Your task to perform on an android device: Clear all items from cart on costco.com. Add bose soundlink mini to the cart on costco.com, then select checkout. Image 0: 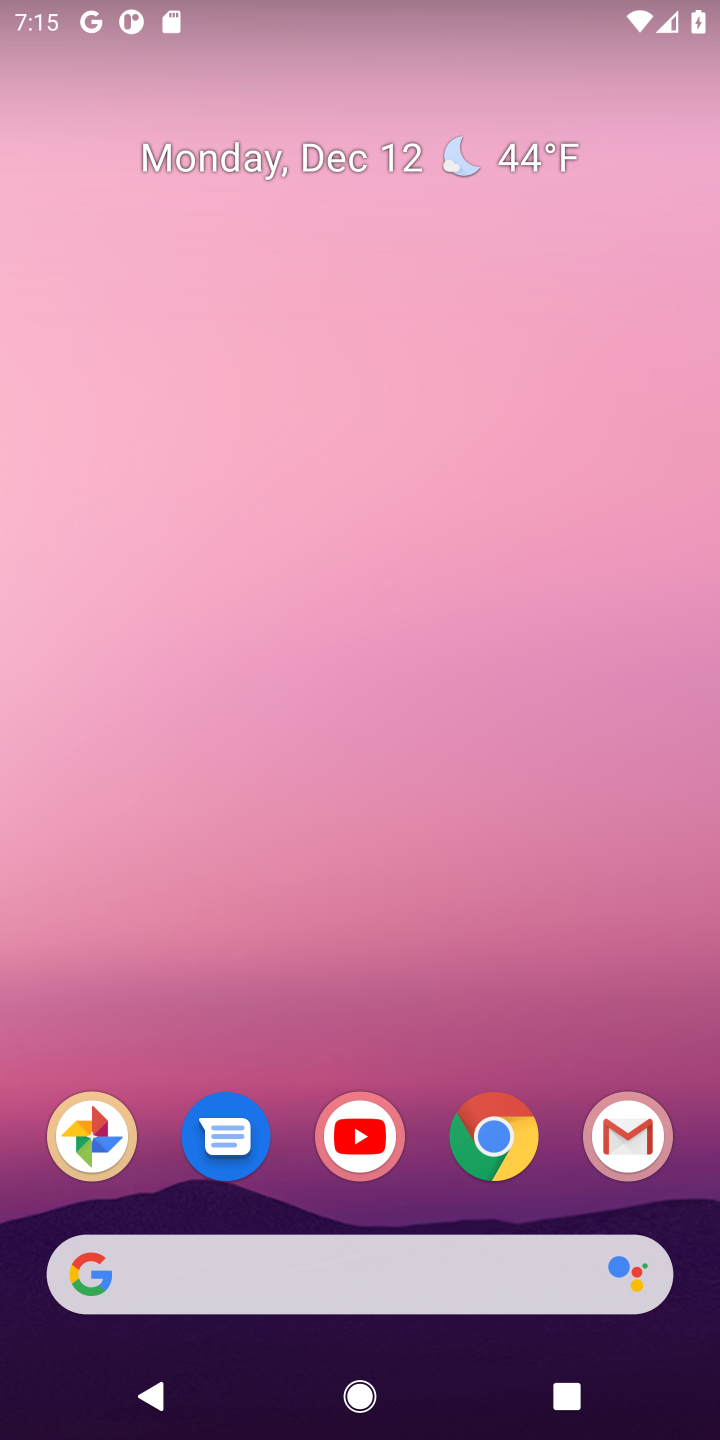
Step 0: click (483, 1136)
Your task to perform on an android device: Clear all items from cart on costco.com. Add bose soundlink mini to the cart on costco.com, then select checkout. Image 1: 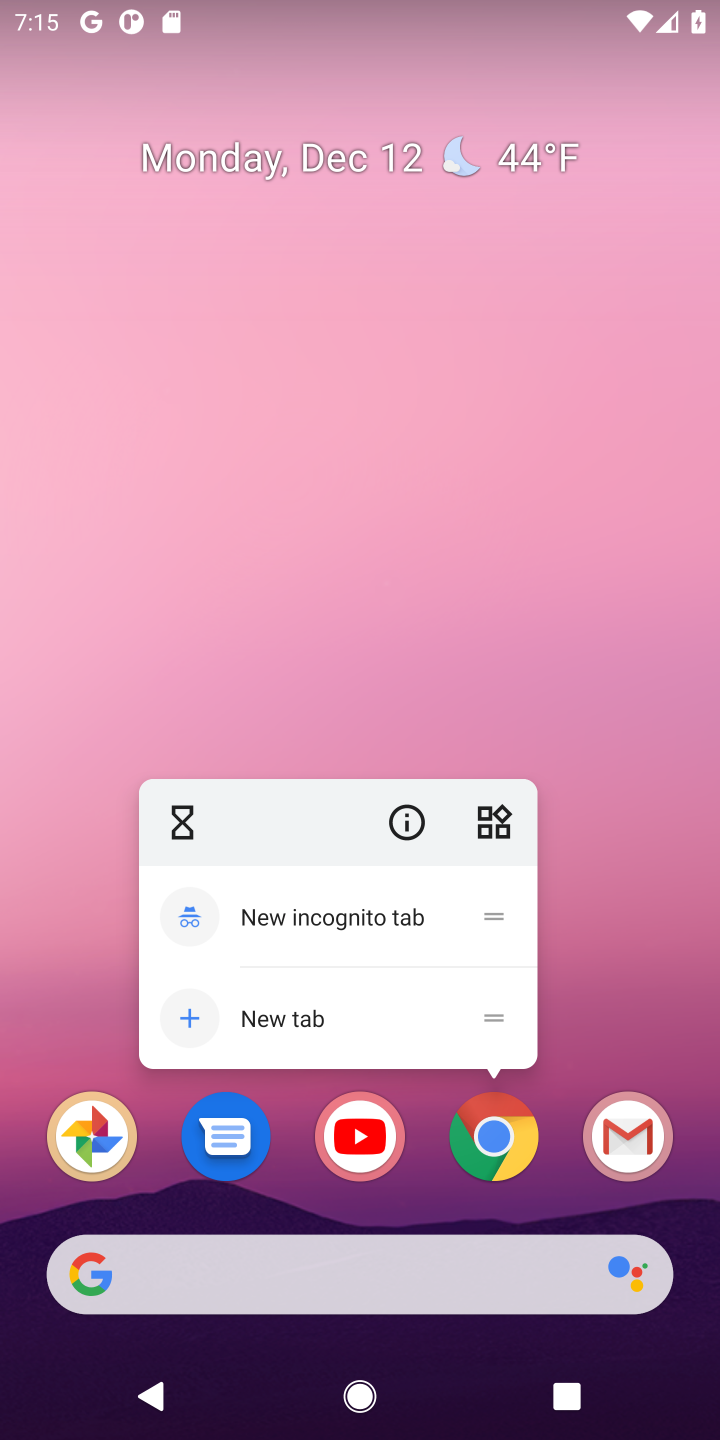
Step 1: click (496, 1144)
Your task to perform on an android device: Clear all items from cart on costco.com. Add bose soundlink mini to the cart on costco.com, then select checkout. Image 2: 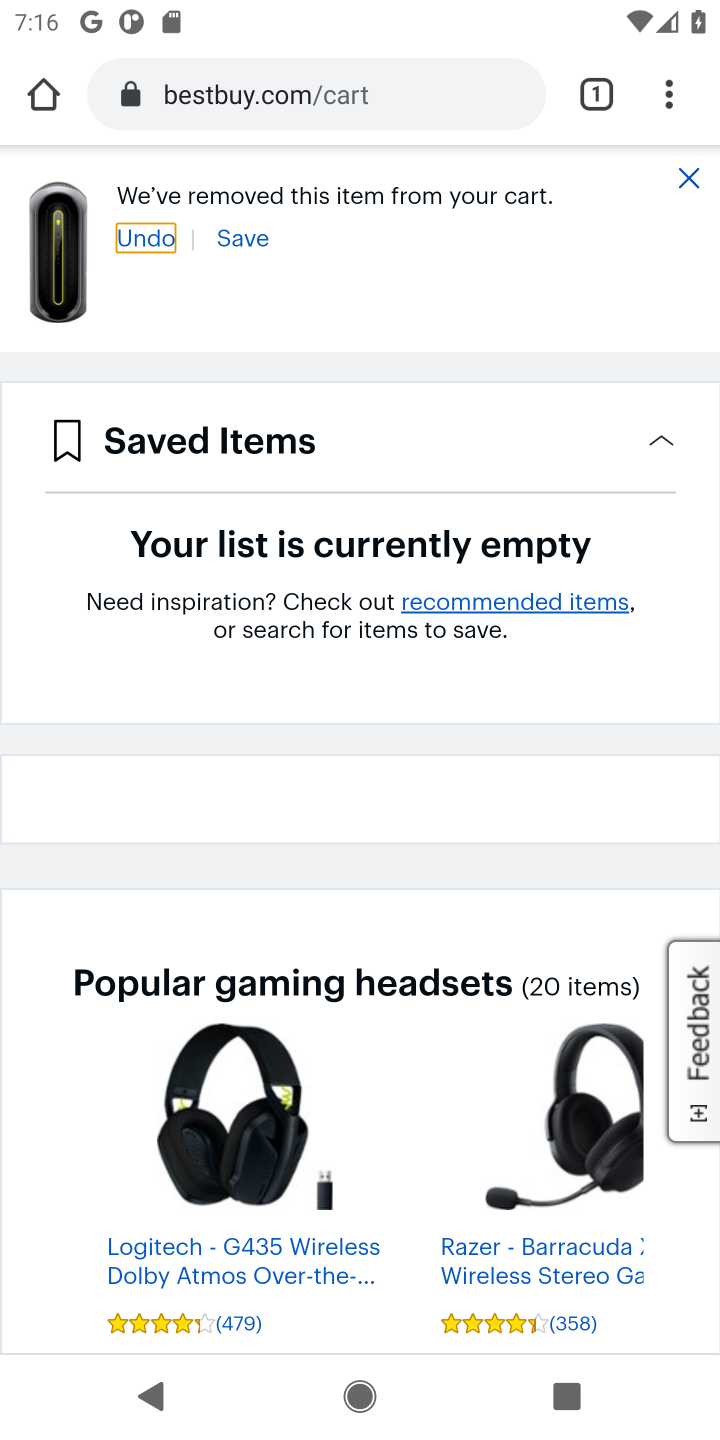
Step 2: click (245, 96)
Your task to perform on an android device: Clear all items from cart on costco.com. Add bose soundlink mini to the cart on costco.com, then select checkout. Image 3: 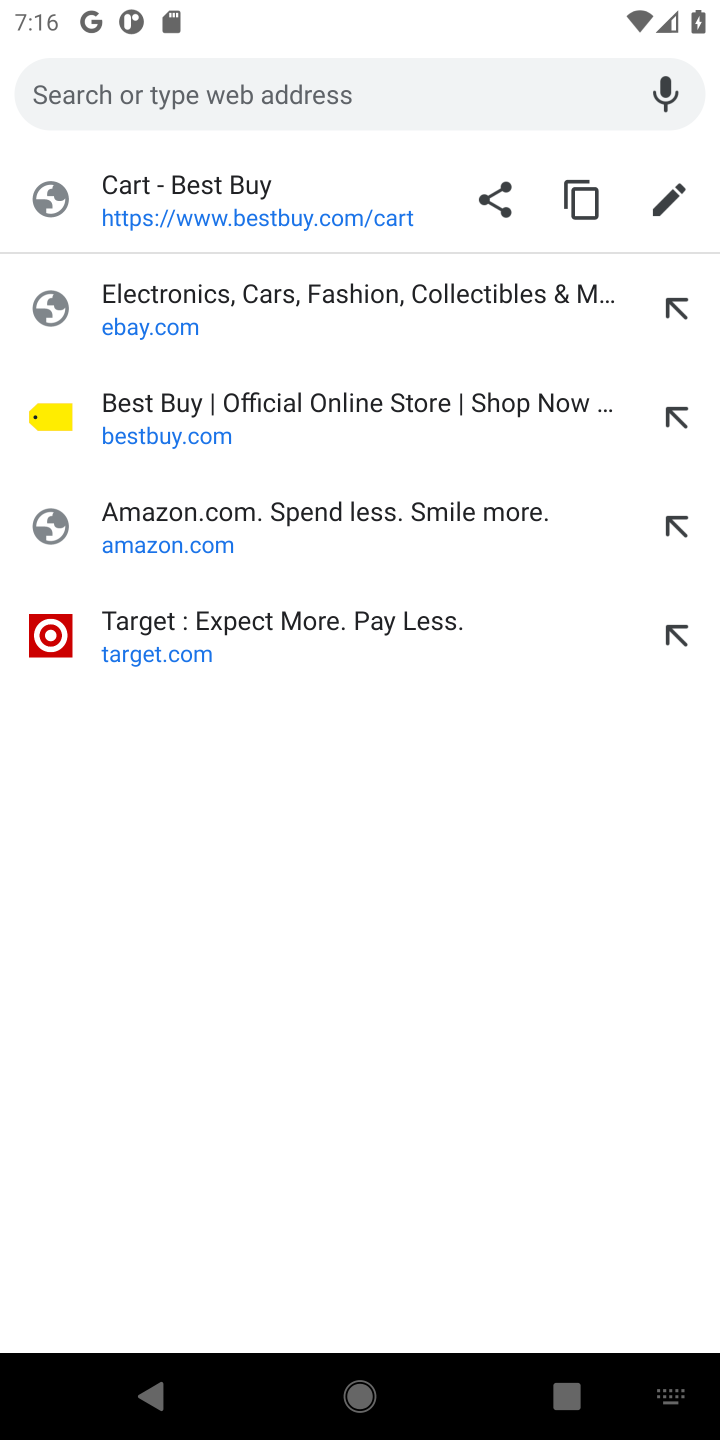
Step 3: type "costco.com"
Your task to perform on an android device: Clear all items from cart on costco.com. Add bose soundlink mini to the cart on costco.com, then select checkout. Image 4: 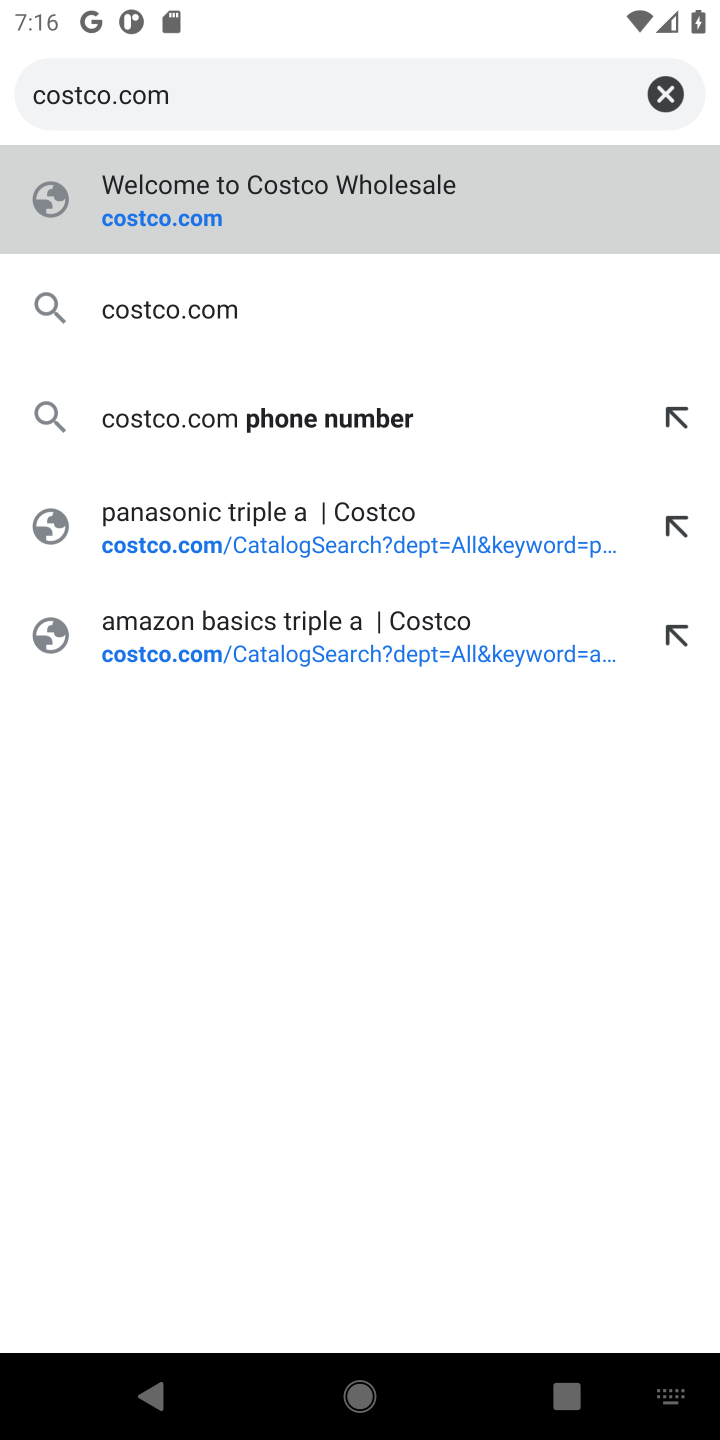
Step 4: click (195, 229)
Your task to perform on an android device: Clear all items from cart on costco.com. Add bose soundlink mini to the cart on costco.com, then select checkout. Image 5: 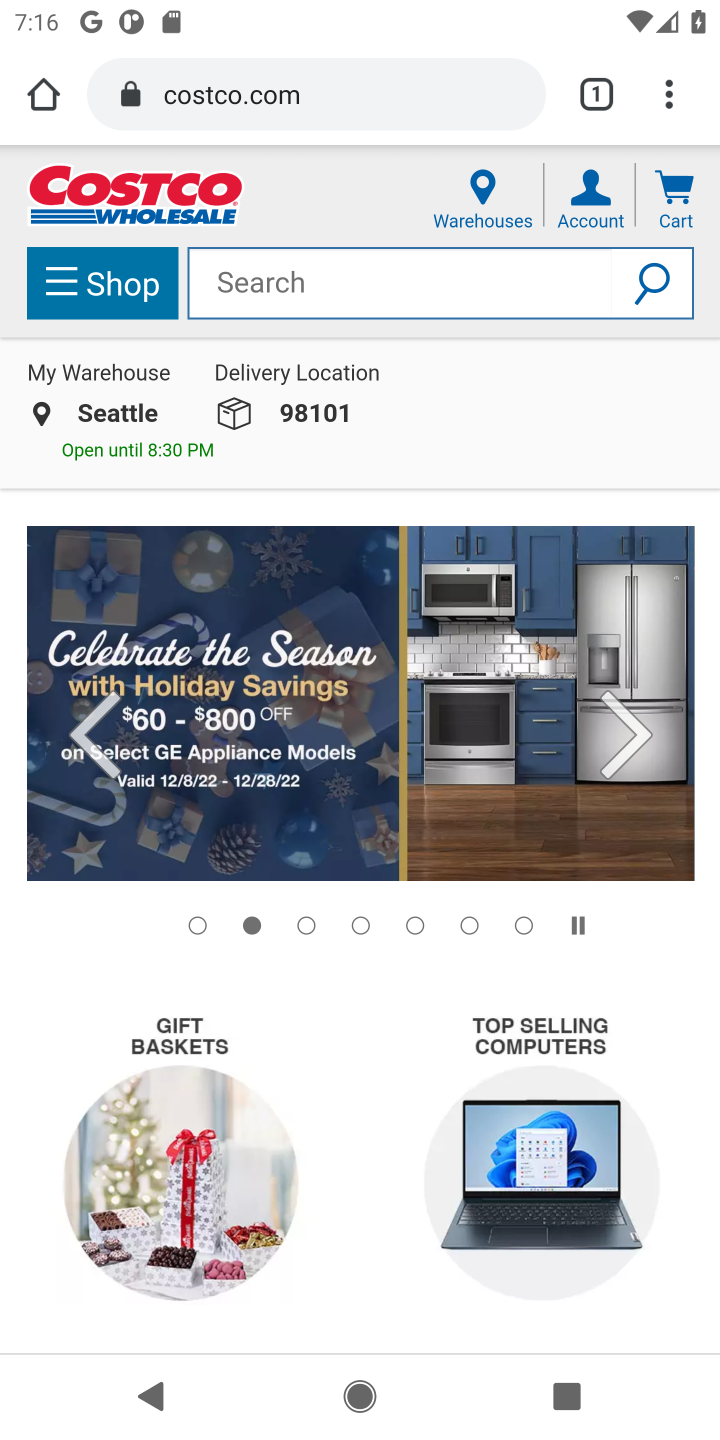
Step 5: click (677, 206)
Your task to perform on an android device: Clear all items from cart on costco.com. Add bose soundlink mini to the cart on costco.com, then select checkout. Image 6: 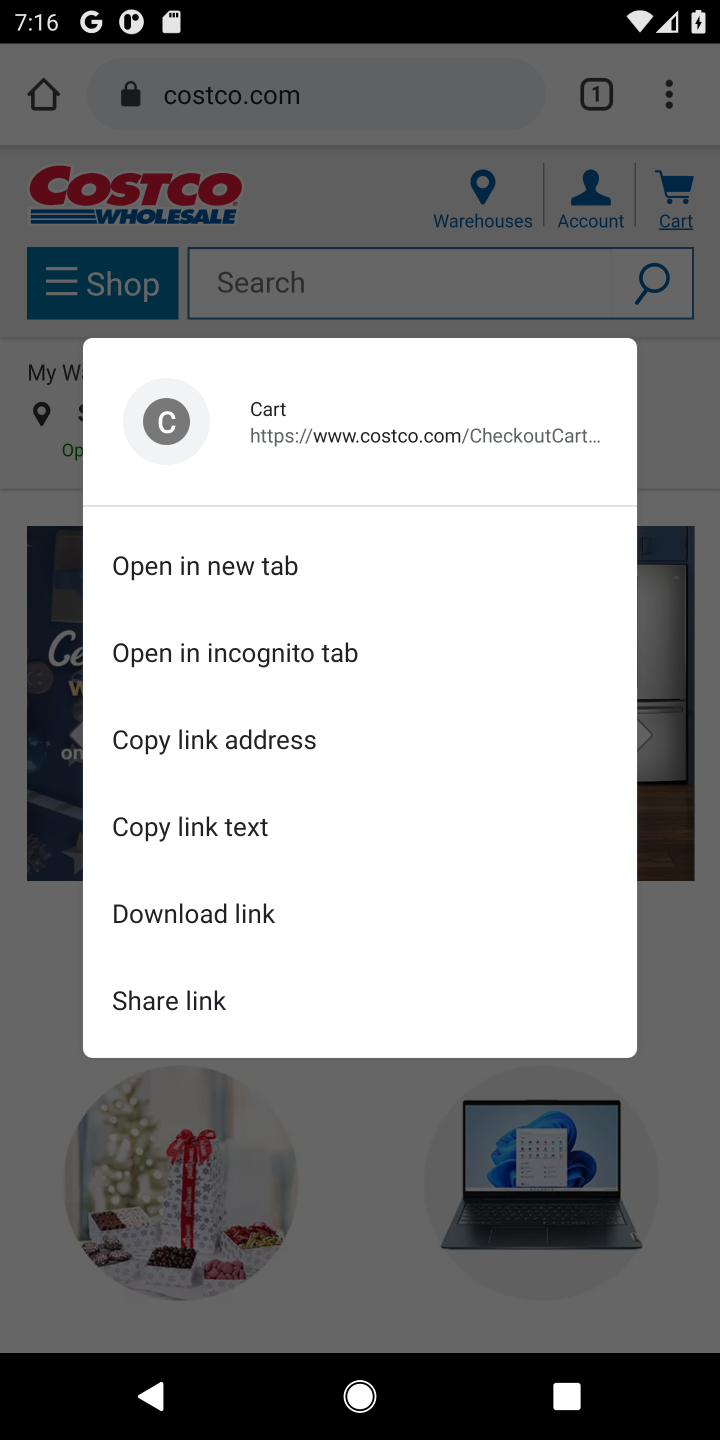
Step 6: click (677, 206)
Your task to perform on an android device: Clear all items from cart on costco.com. Add bose soundlink mini to the cart on costco.com, then select checkout. Image 7: 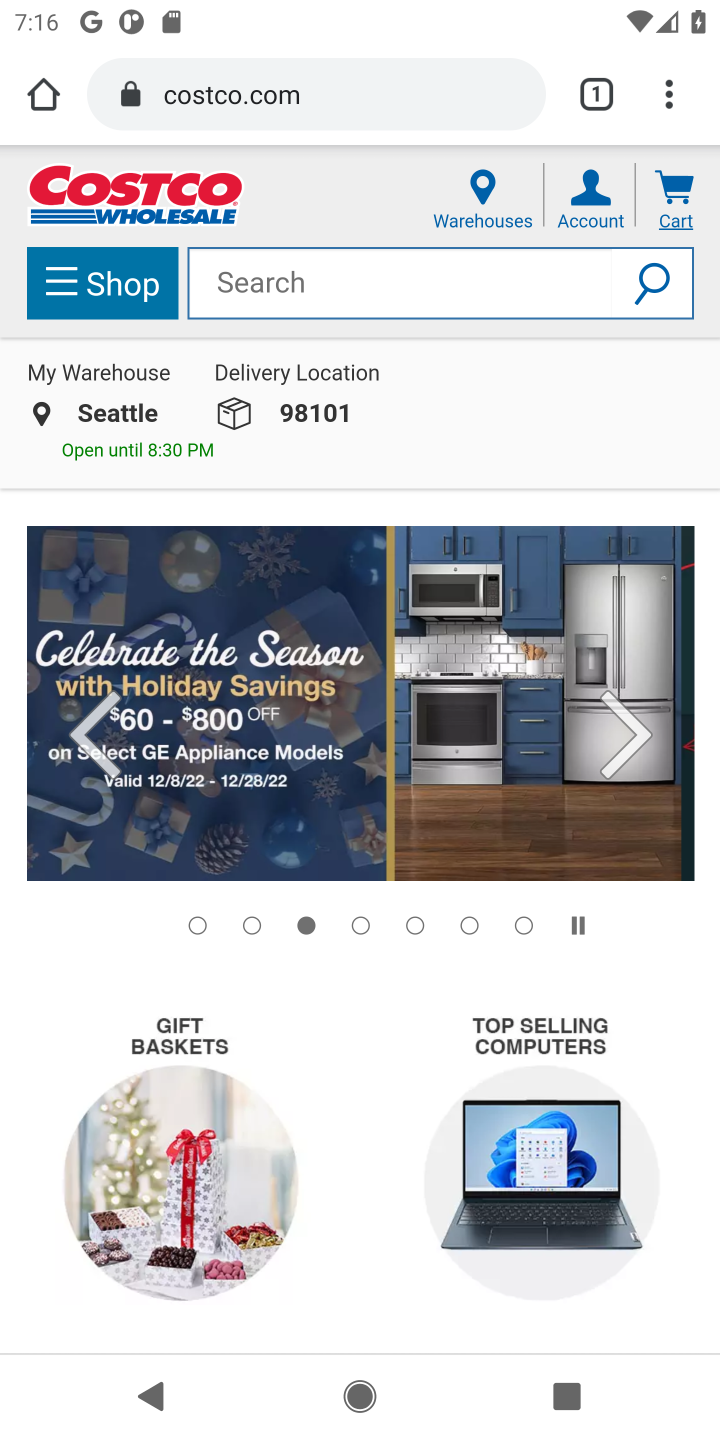
Step 7: click (686, 201)
Your task to perform on an android device: Clear all items from cart on costco.com. Add bose soundlink mini to the cart on costco.com, then select checkout. Image 8: 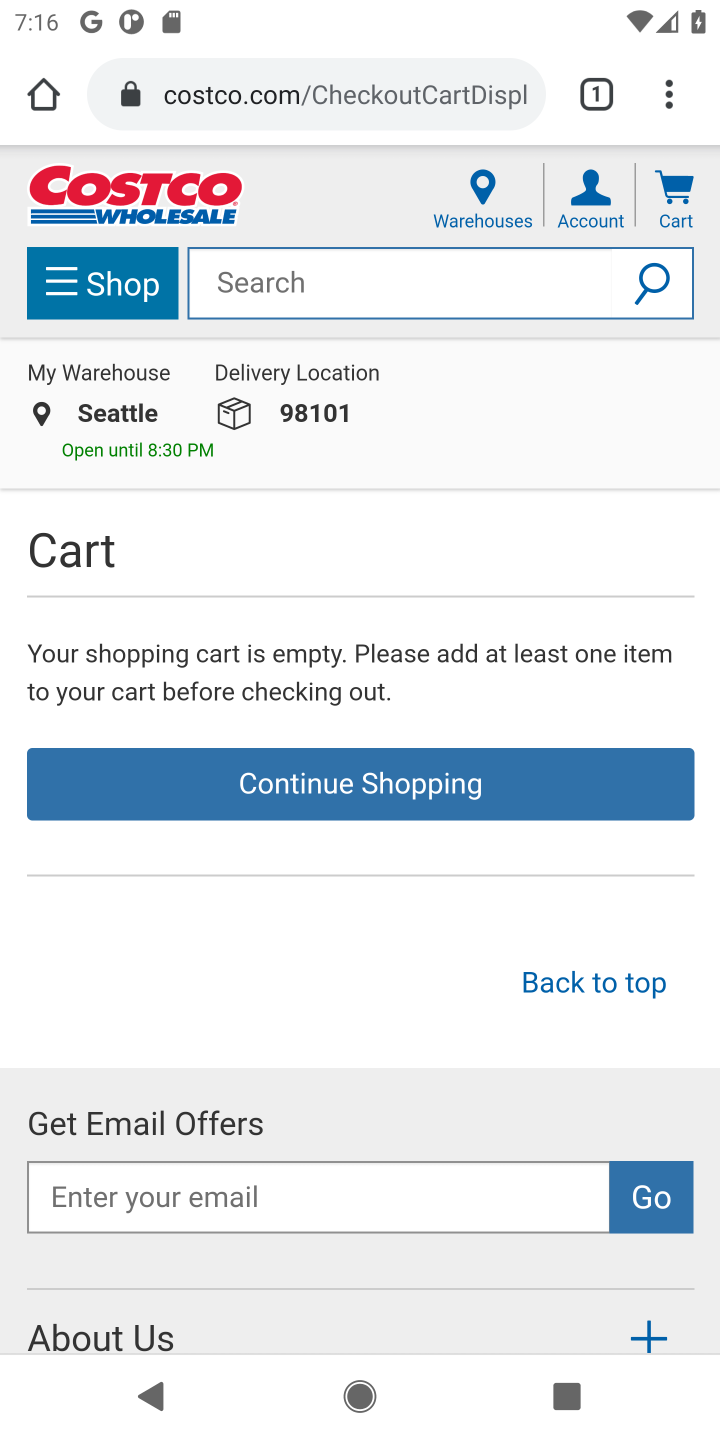
Step 8: click (261, 291)
Your task to perform on an android device: Clear all items from cart on costco.com. Add bose soundlink mini to the cart on costco.com, then select checkout. Image 9: 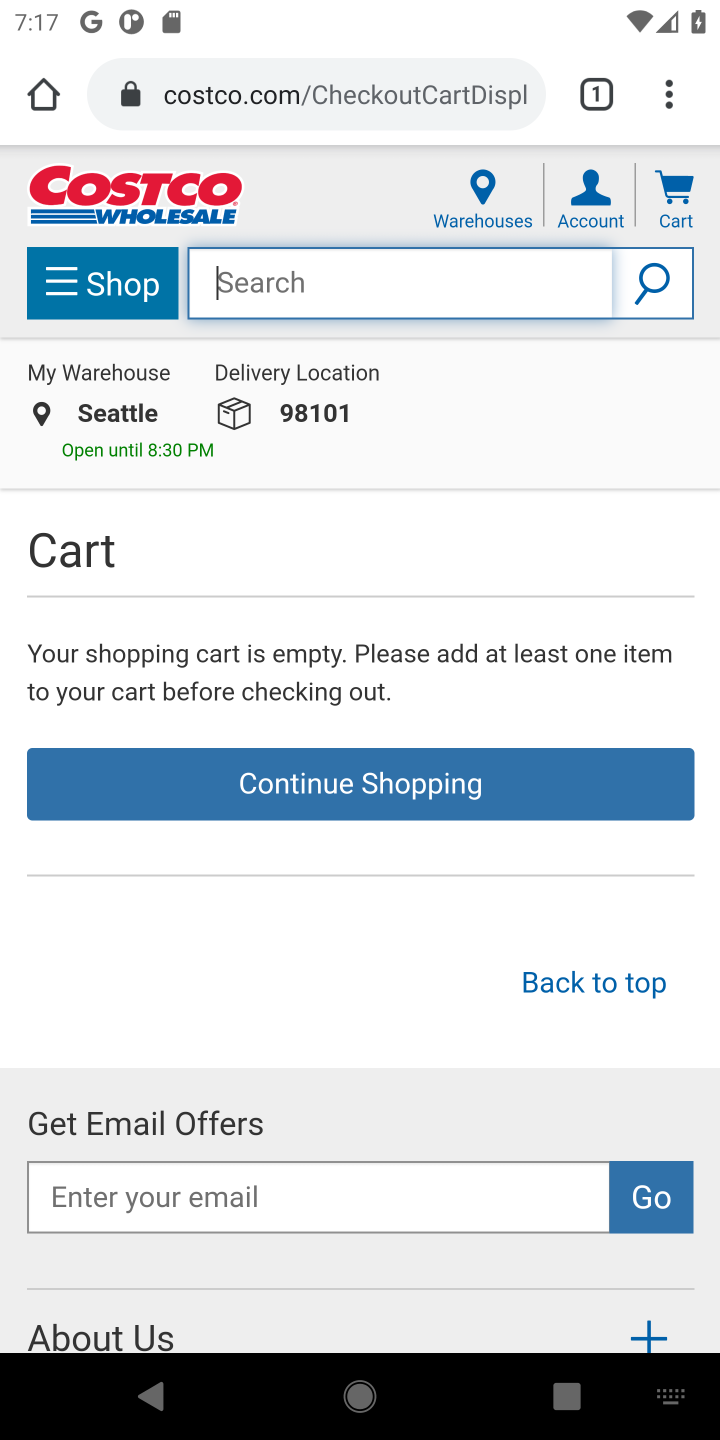
Step 9: type "bose soundlink mini "
Your task to perform on an android device: Clear all items from cart on costco.com. Add bose soundlink mini to the cart on costco.com, then select checkout. Image 10: 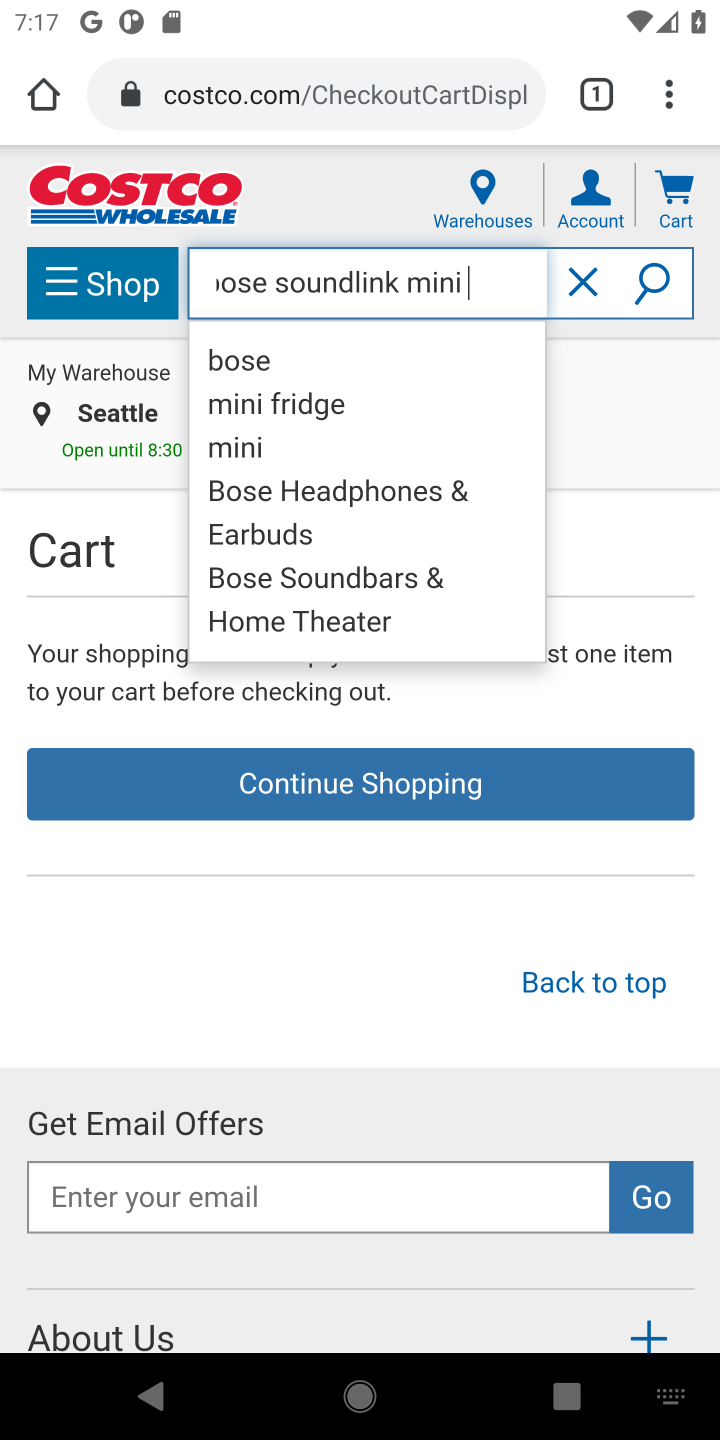
Step 10: click (639, 289)
Your task to perform on an android device: Clear all items from cart on costco.com. Add bose soundlink mini to the cart on costco.com, then select checkout. Image 11: 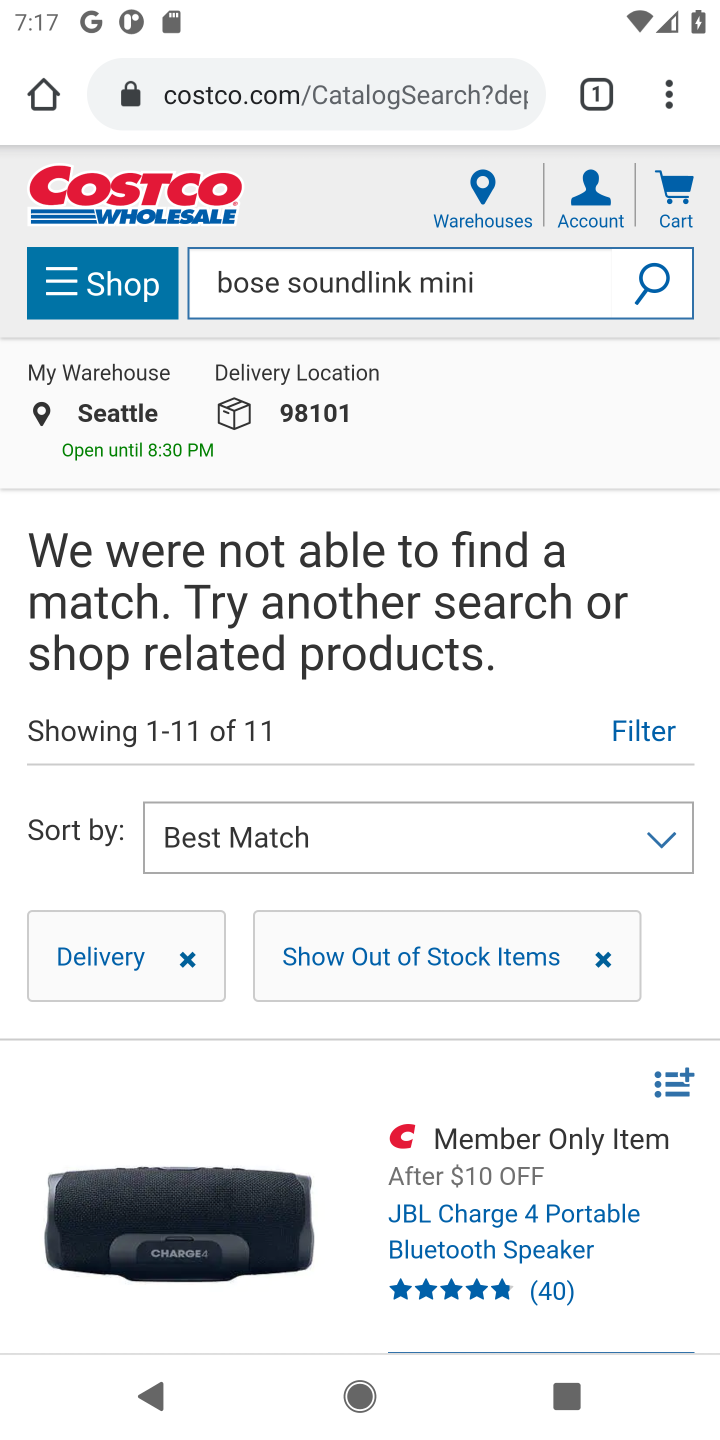
Step 11: task complete